Your task to perform on an android device: change timer sound Image 0: 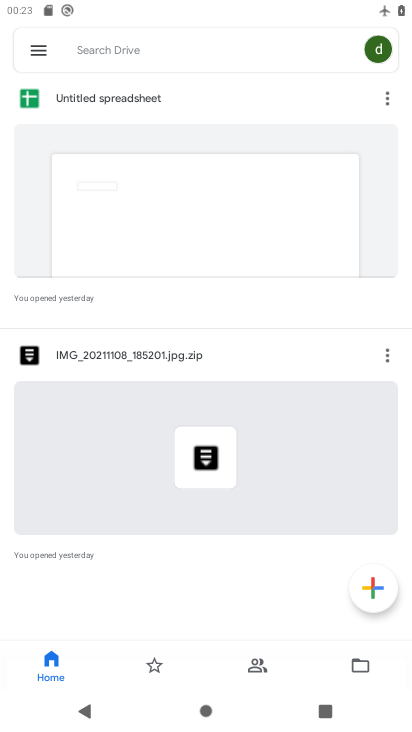
Step 0: press home button
Your task to perform on an android device: change timer sound Image 1: 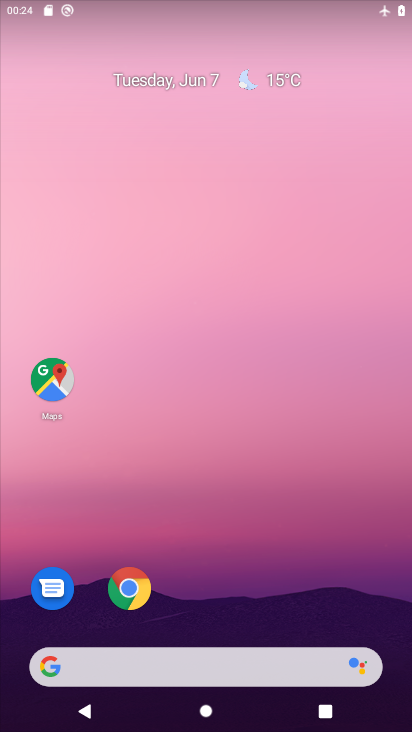
Step 1: drag from (254, 589) to (217, 243)
Your task to perform on an android device: change timer sound Image 2: 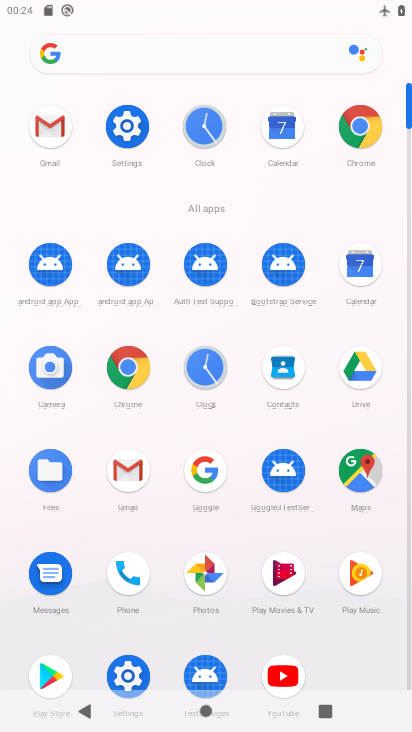
Step 2: click (198, 362)
Your task to perform on an android device: change timer sound Image 3: 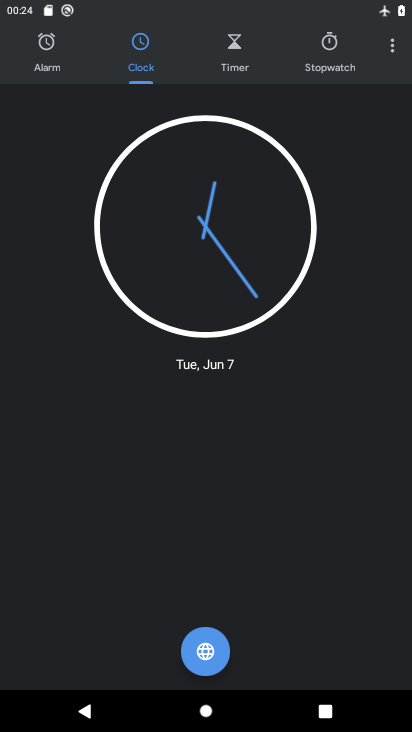
Step 3: click (396, 43)
Your task to perform on an android device: change timer sound Image 4: 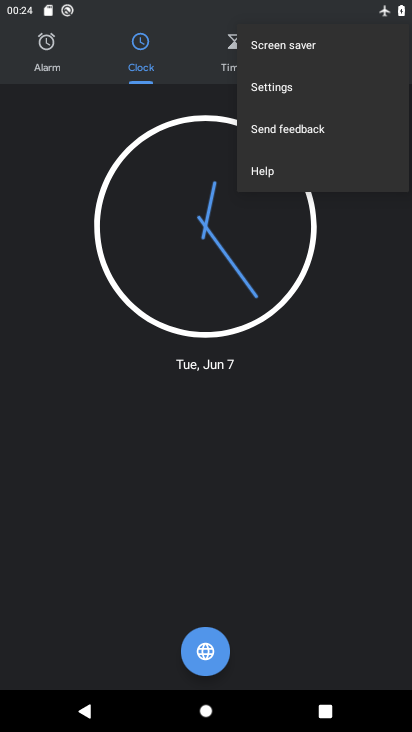
Step 4: click (307, 83)
Your task to perform on an android device: change timer sound Image 5: 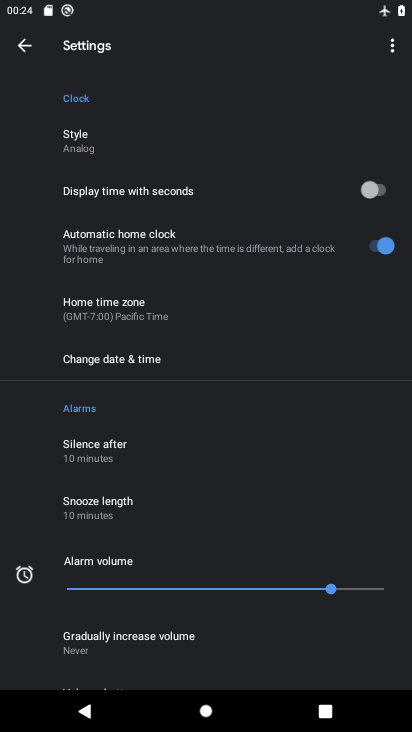
Step 5: drag from (190, 556) to (205, 253)
Your task to perform on an android device: change timer sound Image 6: 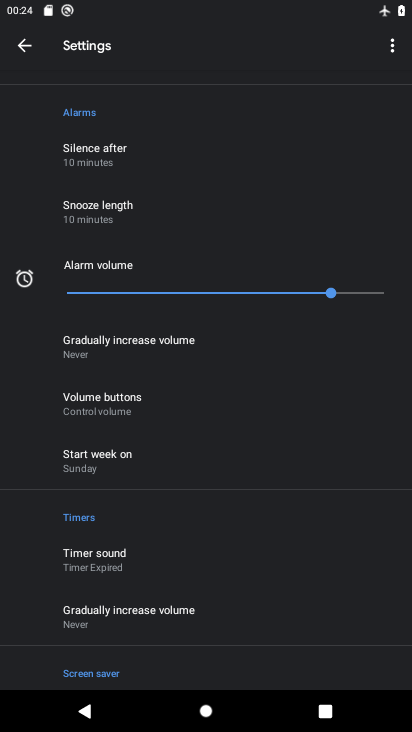
Step 6: click (144, 562)
Your task to perform on an android device: change timer sound Image 7: 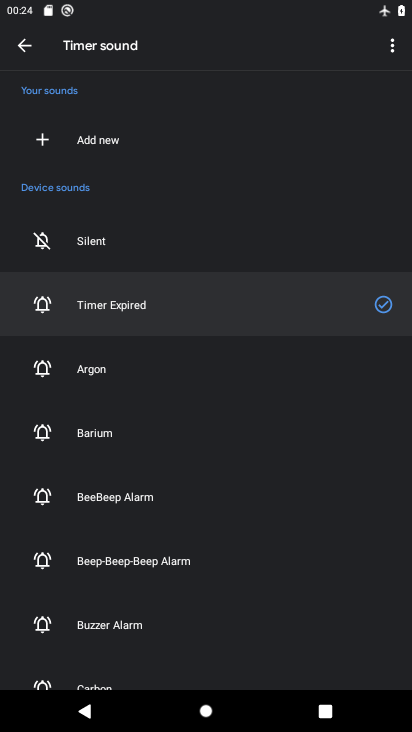
Step 7: click (133, 557)
Your task to perform on an android device: change timer sound Image 8: 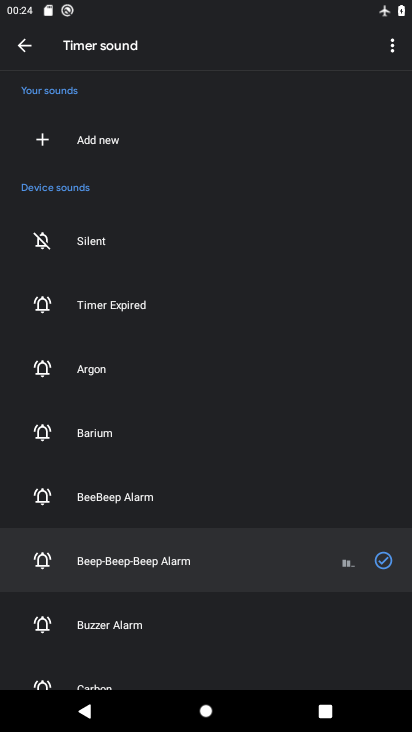
Step 8: task complete